Your task to perform on an android device: Open the Play Movies app and select the watchlist tab. Image 0: 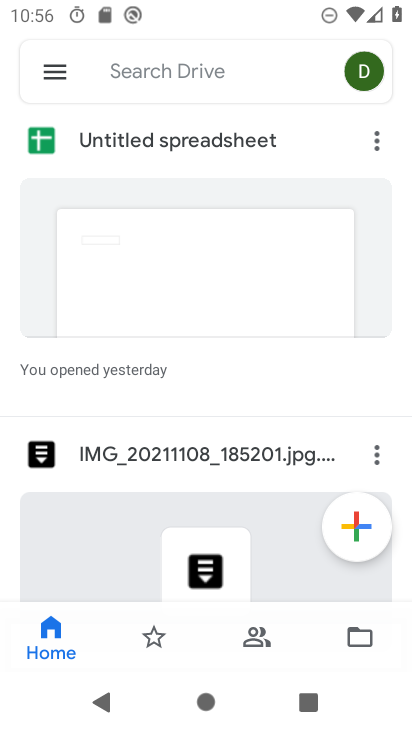
Step 0: press home button
Your task to perform on an android device: Open the Play Movies app and select the watchlist tab. Image 1: 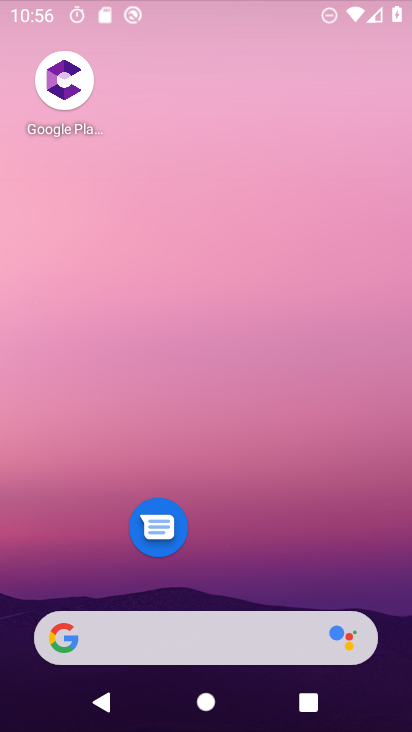
Step 1: drag from (255, 527) to (306, 29)
Your task to perform on an android device: Open the Play Movies app and select the watchlist tab. Image 2: 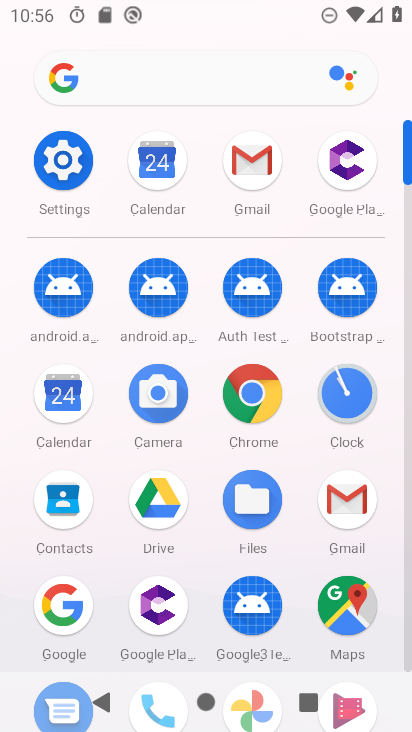
Step 2: drag from (292, 592) to (313, 254)
Your task to perform on an android device: Open the Play Movies app and select the watchlist tab. Image 3: 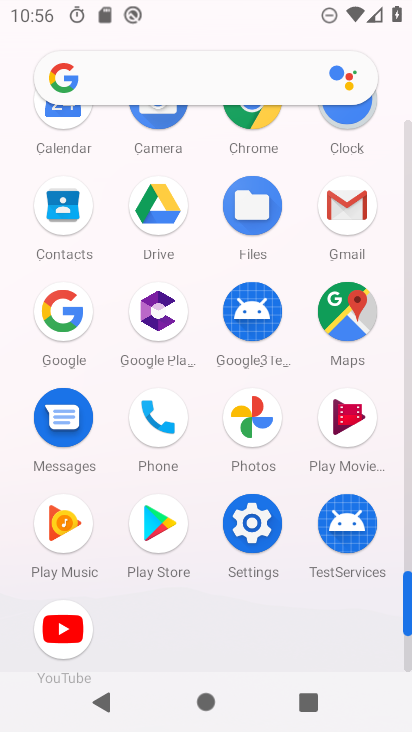
Step 3: click (348, 418)
Your task to perform on an android device: Open the Play Movies app and select the watchlist tab. Image 4: 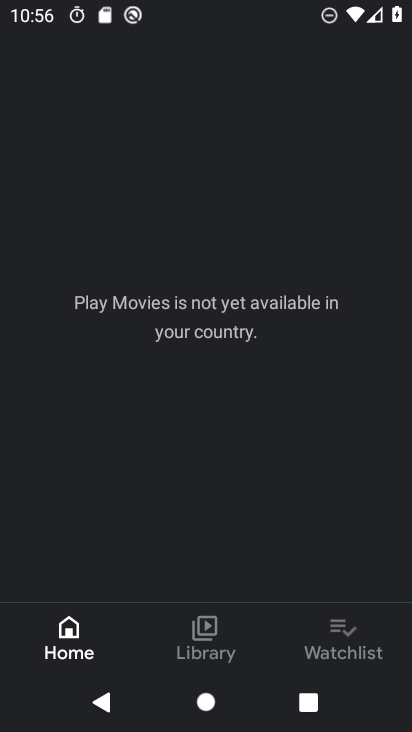
Step 4: click (364, 636)
Your task to perform on an android device: Open the Play Movies app and select the watchlist tab. Image 5: 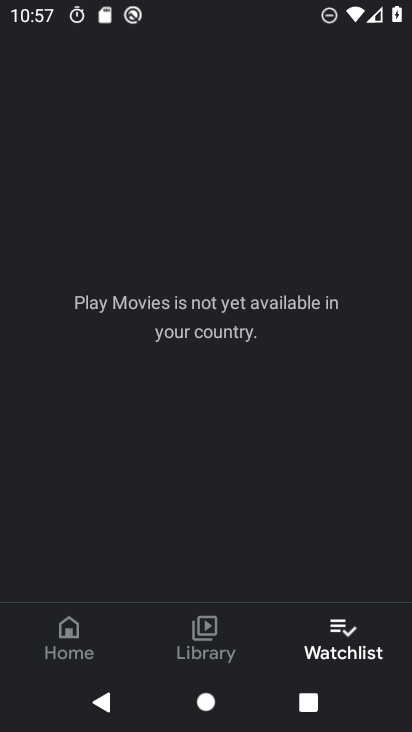
Step 5: task complete